Your task to perform on an android device: create a new album in the google photos Image 0: 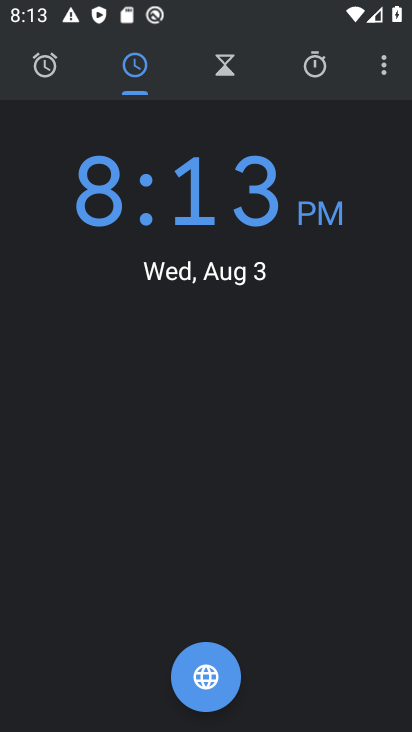
Step 0: press back button
Your task to perform on an android device: create a new album in the google photos Image 1: 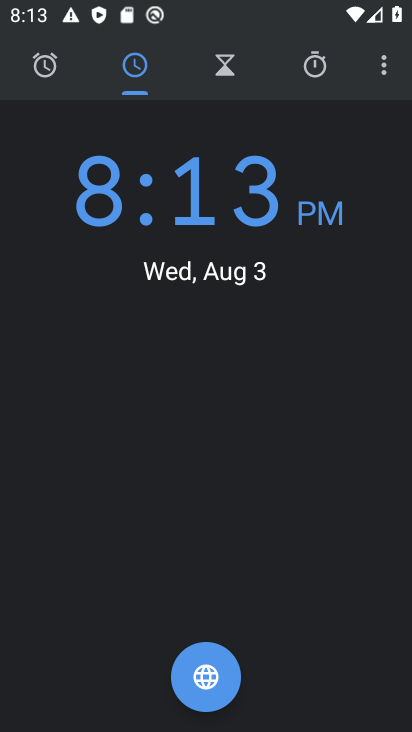
Step 1: press back button
Your task to perform on an android device: create a new album in the google photos Image 2: 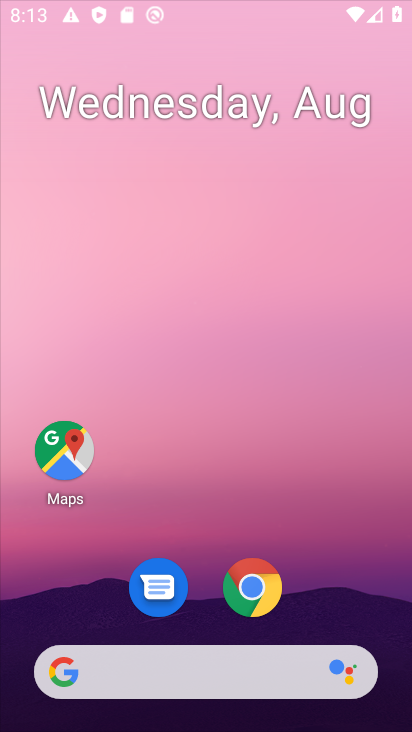
Step 2: press back button
Your task to perform on an android device: create a new album in the google photos Image 3: 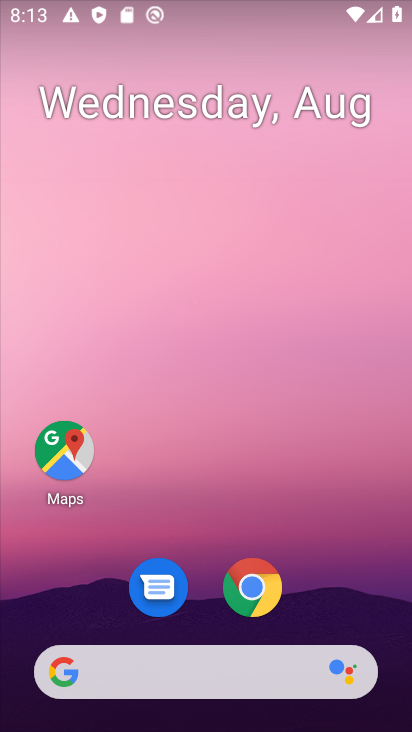
Step 3: drag from (260, 639) to (273, 28)
Your task to perform on an android device: create a new album in the google photos Image 4: 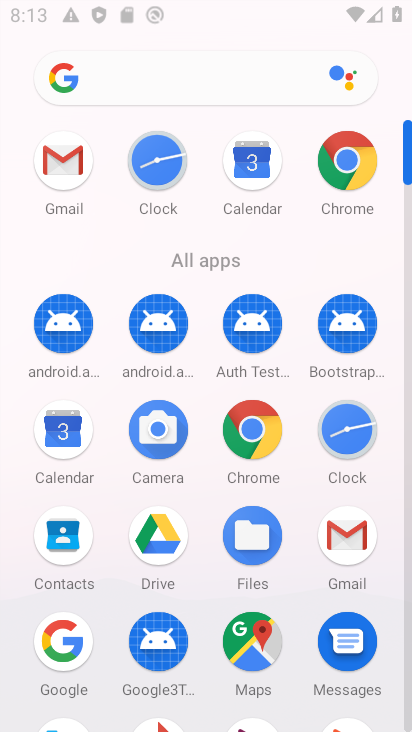
Step 4: drag from (258, 518) to (183, 82)
Your task to perform on an android device: create a new album in the google photos Image 5: 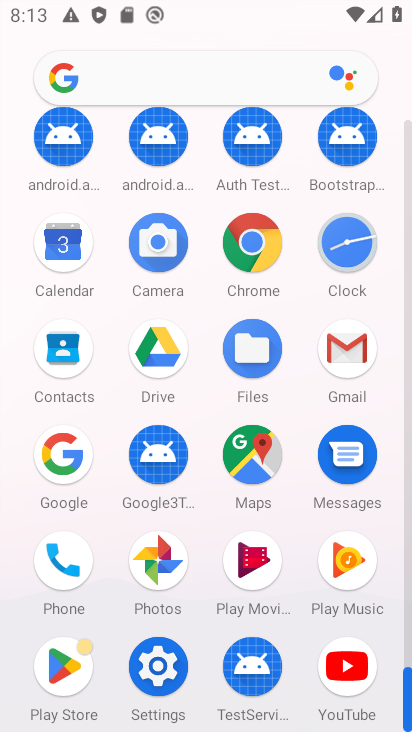
Step 5: click (150, 566)
Your task to perform on an android device: create a new album in the google photos Image 6: 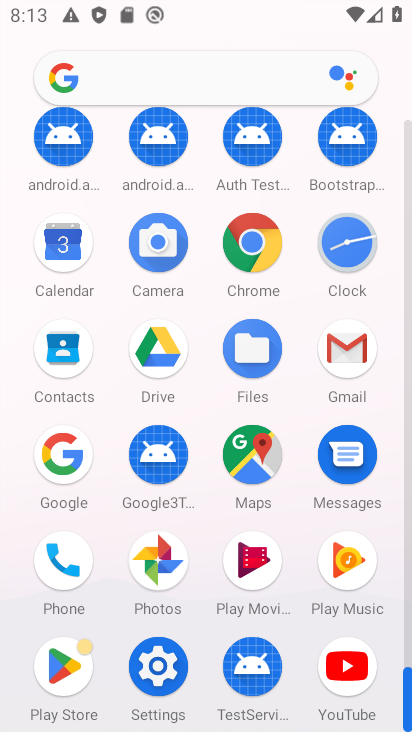
Step 6: click (150, 566)
Your task to perform on an android device: create a new album in the google photos Image 7: 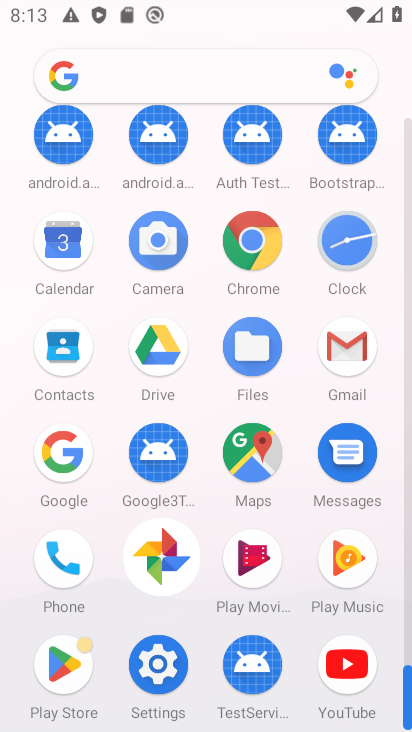
Step 7: click (150, 566)
Your task to perform on an android device: create a new album in the google photos Image 8: 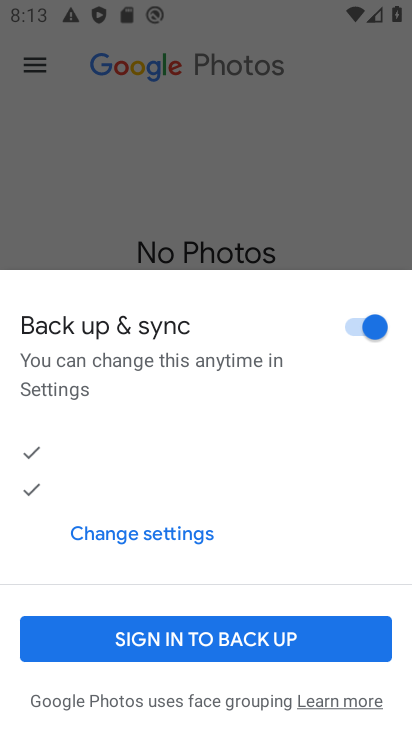
Step 8: click (107, 176)
Your task to perform on an android device: create a new album in the google photos Image 9: 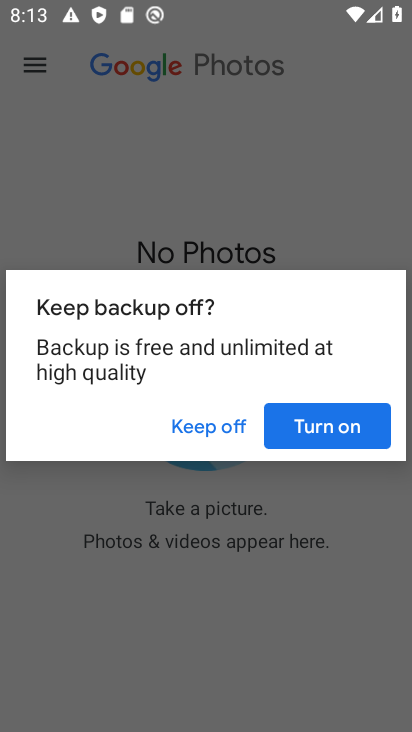
Step 9: click (192, 428)
Your task to perform on an android device: create a new album in the google photos Image 10: 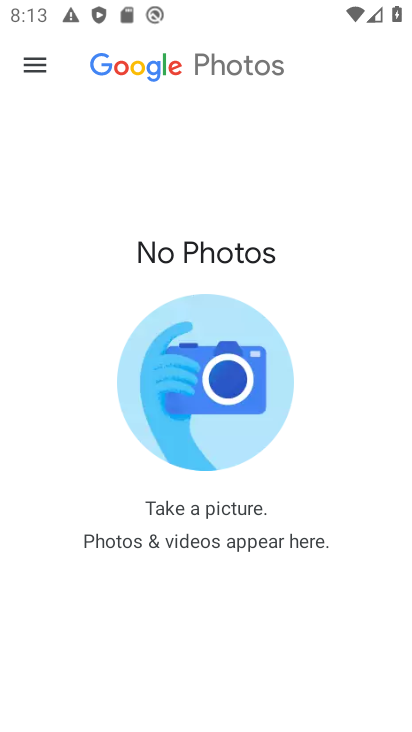
Step 10: click (18, 60)
Your task to perform on an android device: create a new album in the google photos Image 11: 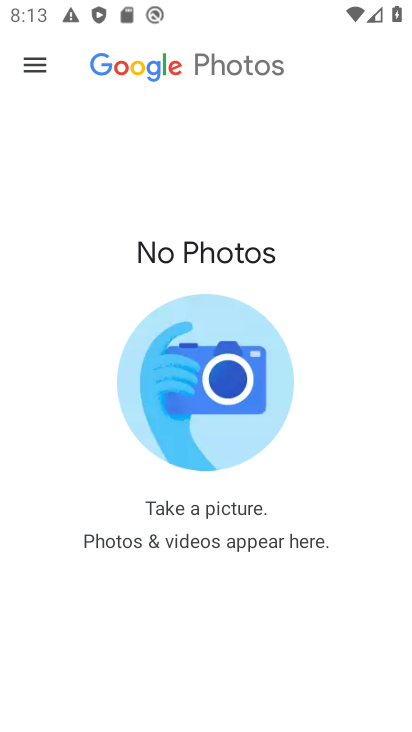
Step 11: click (37, 53)
Your task to perform on an android device: create a new album in the google photos Image 12: 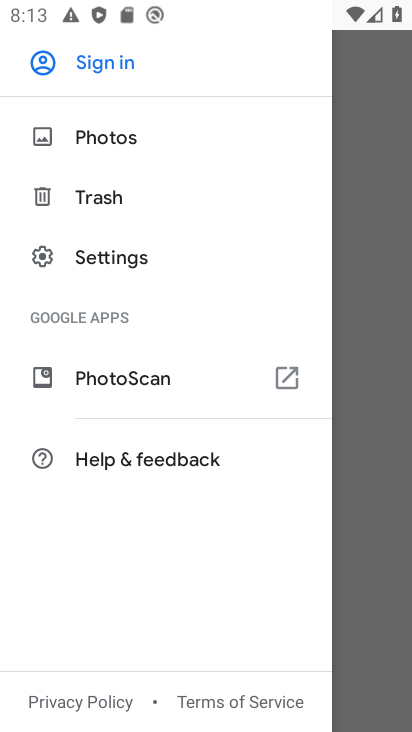
Step 12: click (358, 441)
Your task to perform on an android device: create a new album in the google photos Image 13: 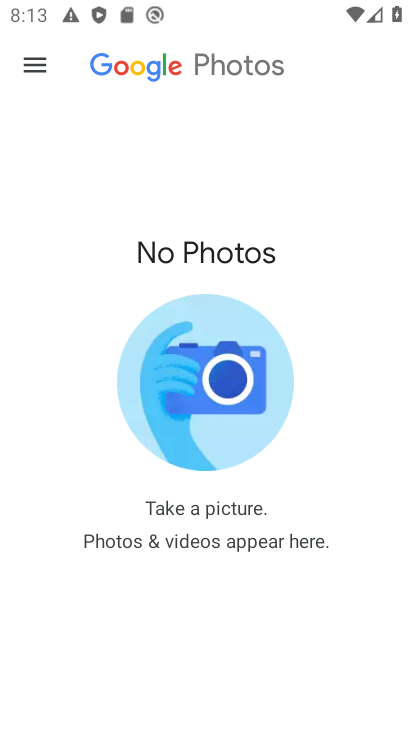
Step 13: click (161, 433)
Your task to perform on an android device: create a new album in the google photos Image 14: 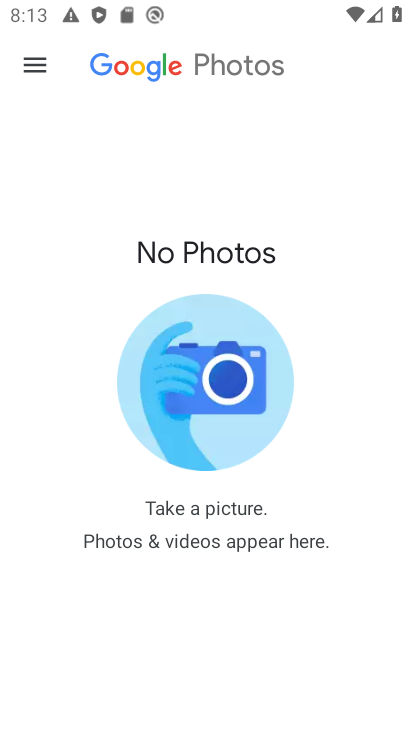
Step 14: click (167, 425)
Your task to perform on an android device: create a new album in the google photos Image 15: 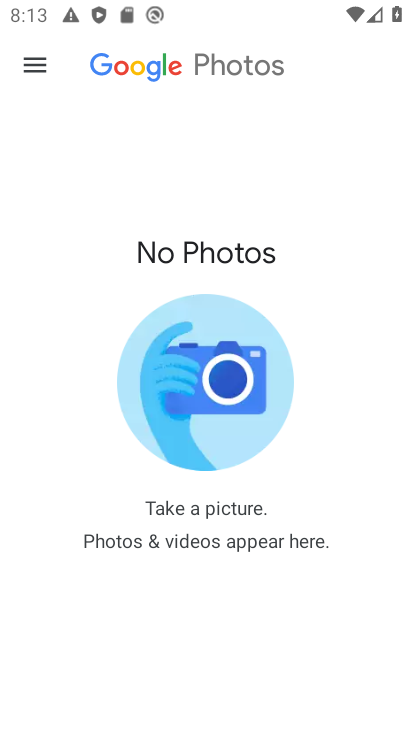
Step 15: click (167, 425)
Your task to perform on an android device: create a new album in the google photos Image 16: 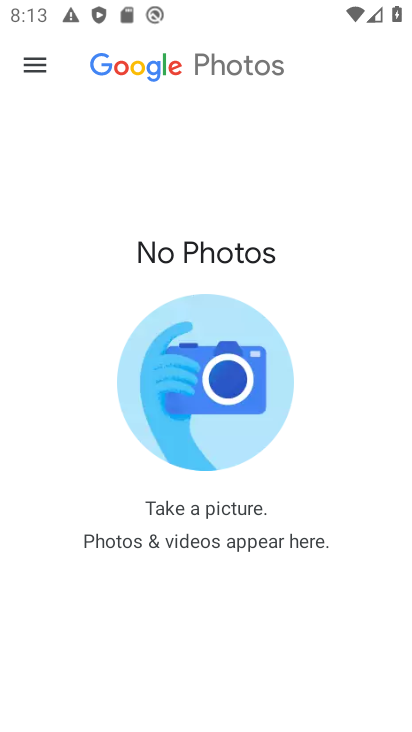
Step 16: click (168, 416)
Your task to perform on an android device: create a new album in the google photos Image 17: 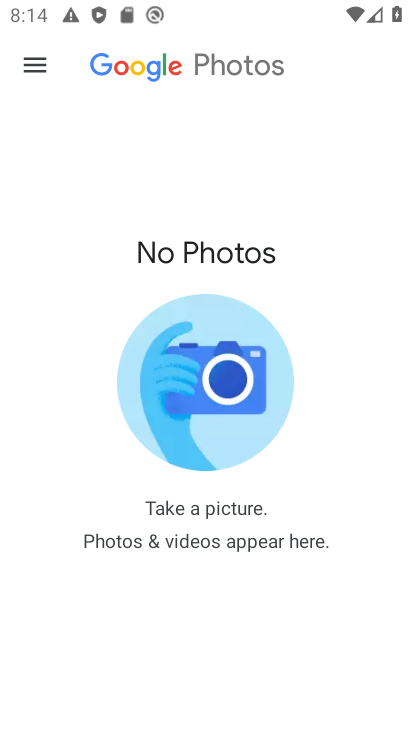
Step 17: task complete